Your task to perform on an android device: Open Youtube and go to the subscriptions tab Image 0: 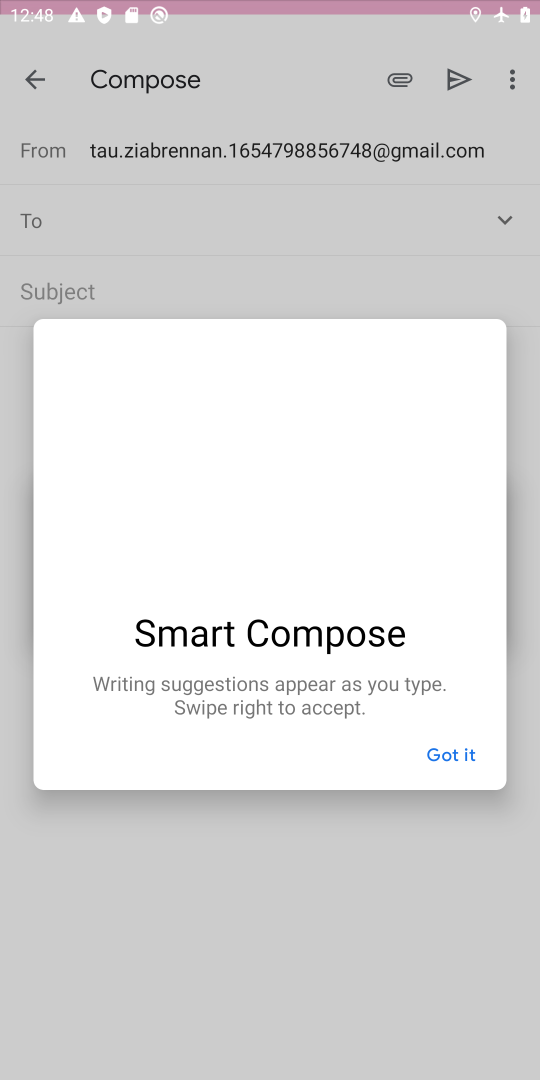
Step 0: press home button
Your task to perform on an android device: Open Youtube and go to the subscriptions tab Image 1: 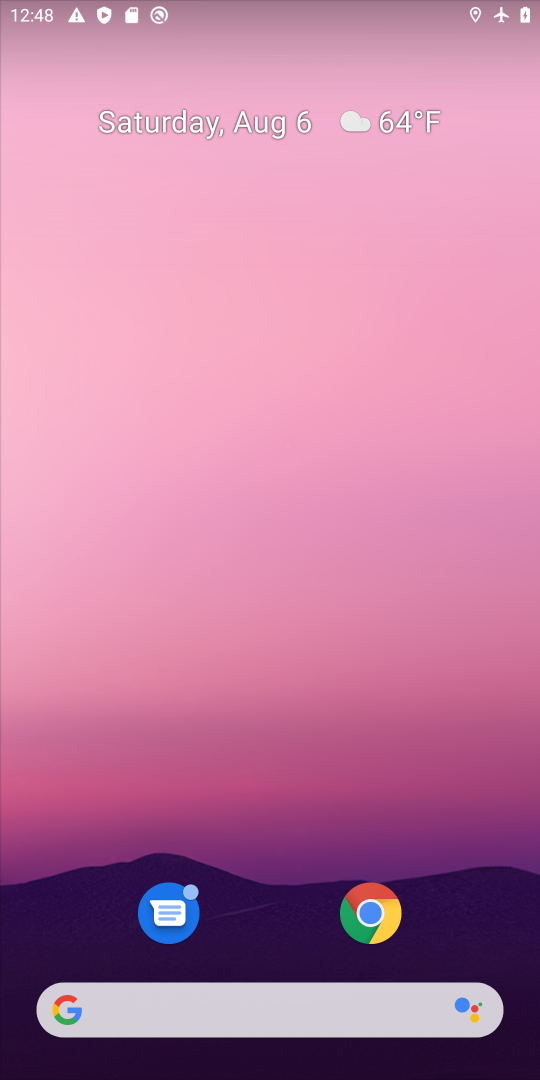
Step 1: drag from (455, 903) to (472, 302)
Your task to perform on an android device: Open Youtube and go to the subscriptions tab Image 2: 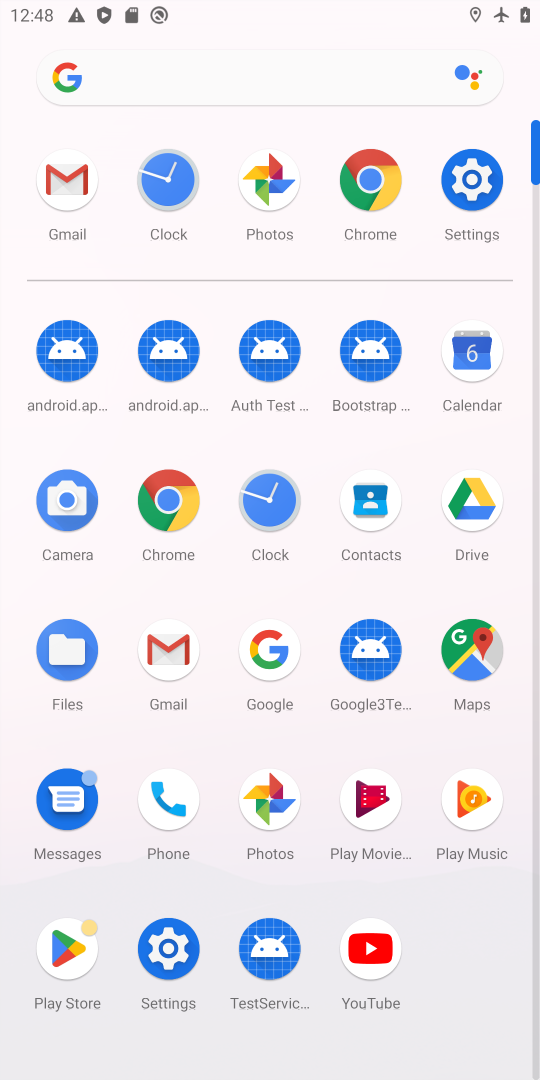
Step 2: click (365, 959)
Your task to perform on an android device: Open Youtube and go to the subscriptions tab Image 3: 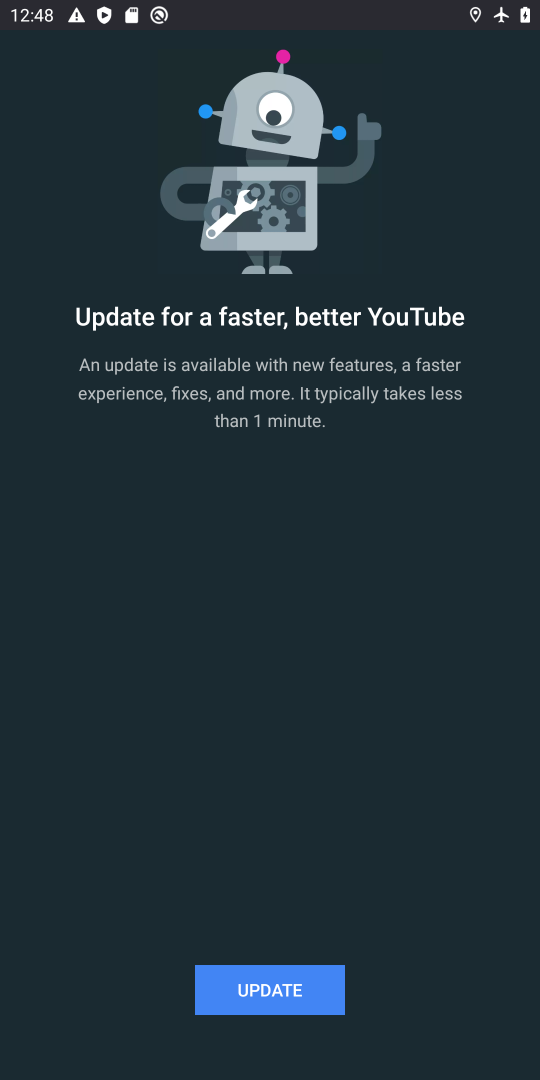
Step 3: click (291, 996)
Your task to perform on an android device: Open Youtube and go to the subscriptions tab Image 4: 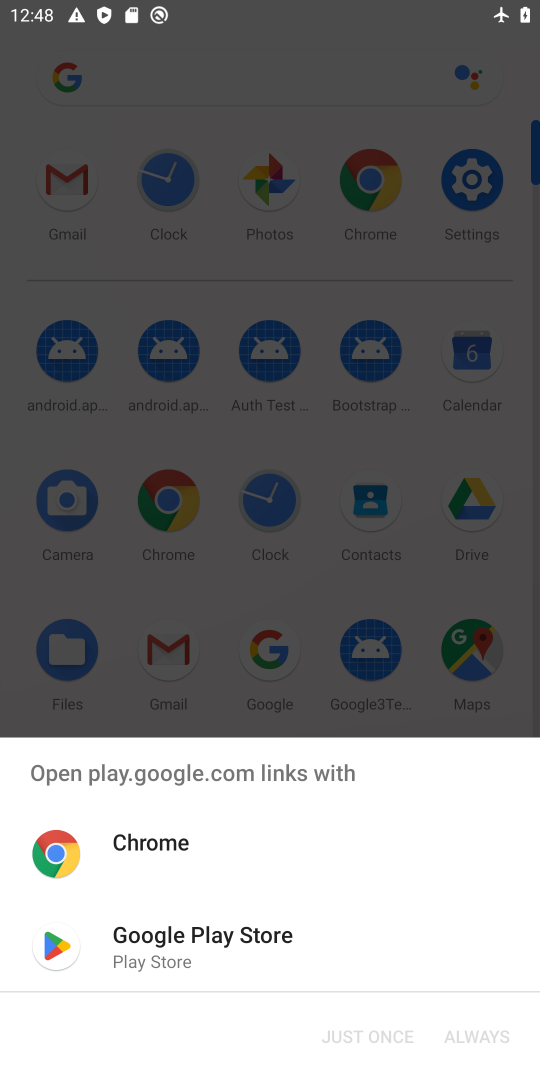
Step 4: click (148, 953)
Your task to perform on an android device: Open Youtube and go to the subscriptions tab Image 5: 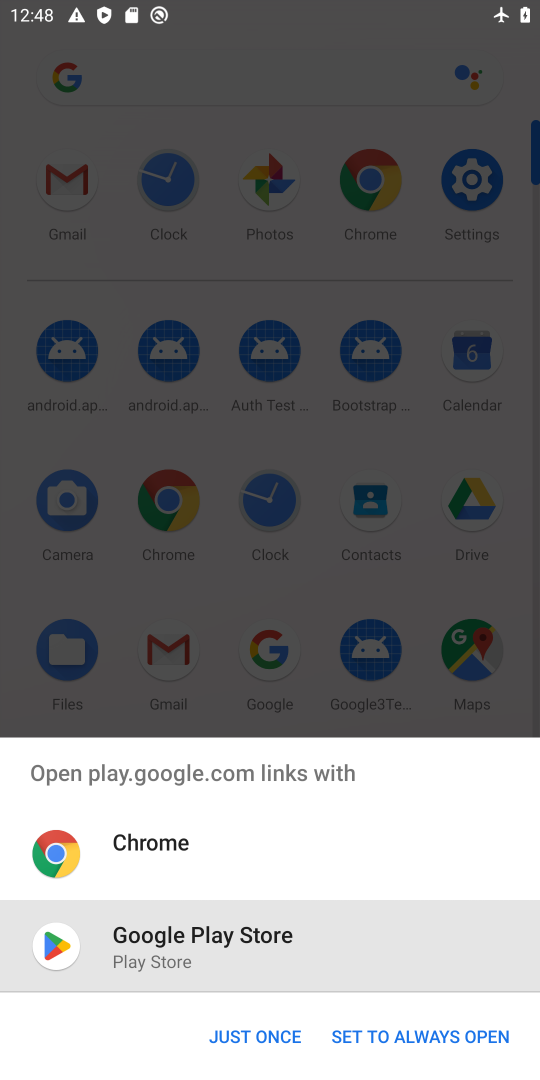
Step 5: click (251, 1037)
Your task to perform on an android device: Open Youtube and go to the subscriptions tab Image 6: 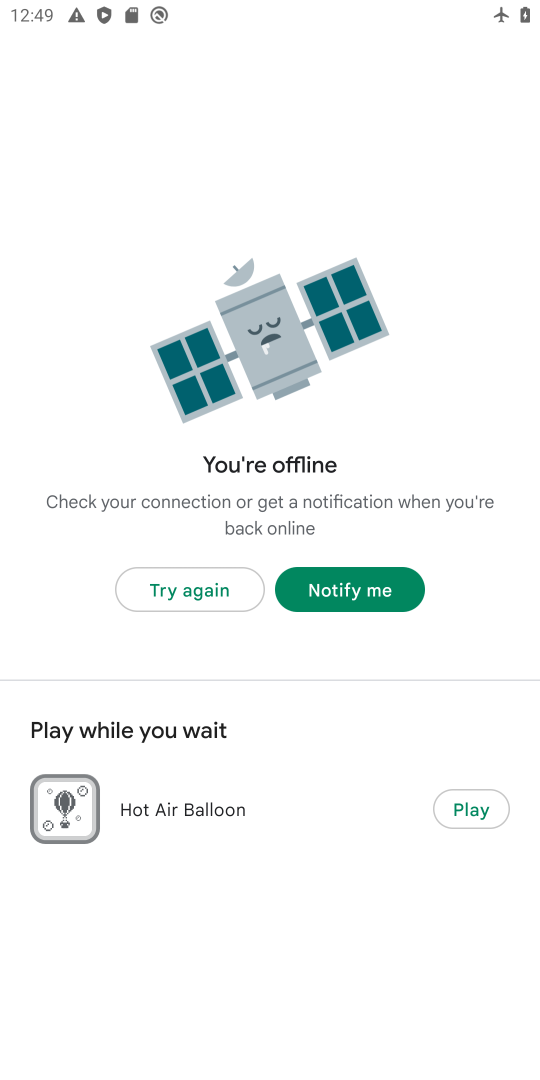
Step 6: task complete